Your task to perform on an android device: Open the web browser Image 0: 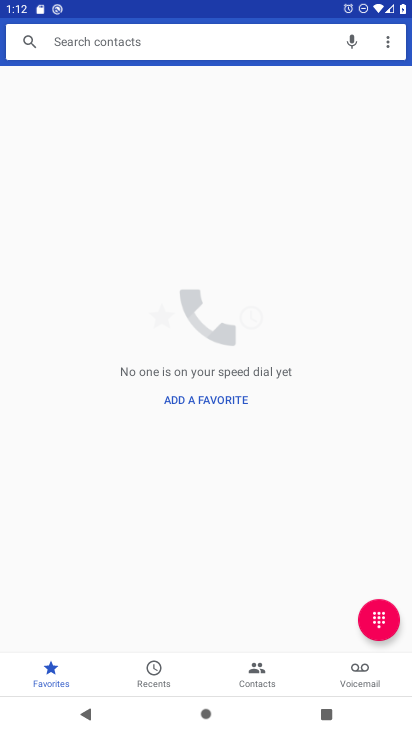
Step 0: press home button
Your task to perform on an android device: Open the web browser Image 1: 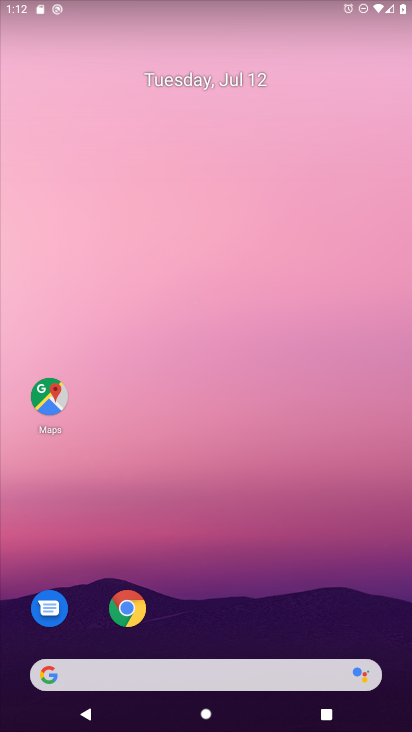
Step 1: click (127, 612)
Your task to perform on an android device: Open the web browser Image 2: 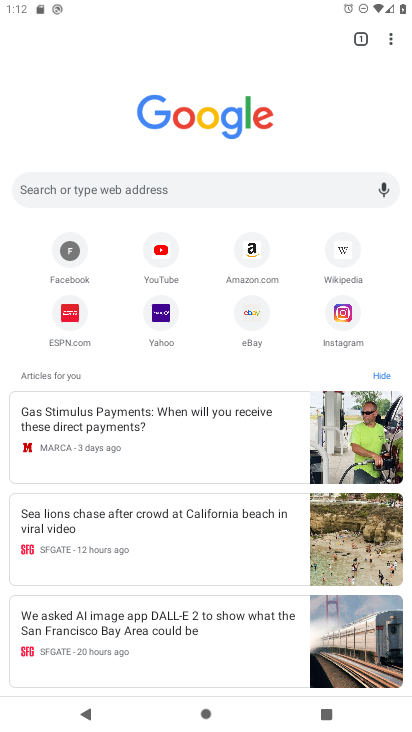
Step 2: task complete